Your task to perform on an android device: toggle notifications settings in the gmail app Image 0: 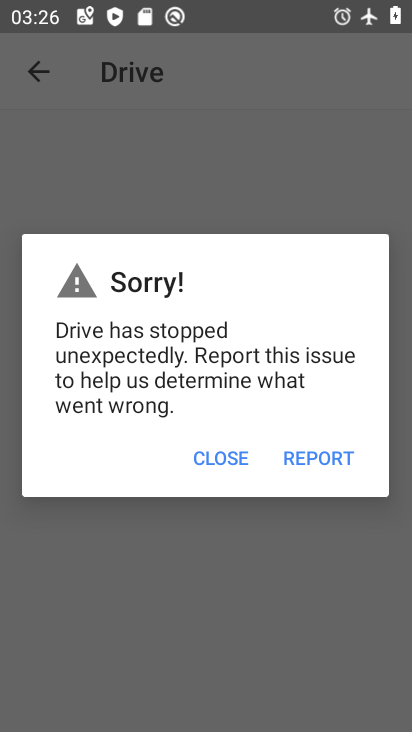
Step 0: press home button
Your task to perform on an android device: toggle notifications settings in the gmail app Image 1: 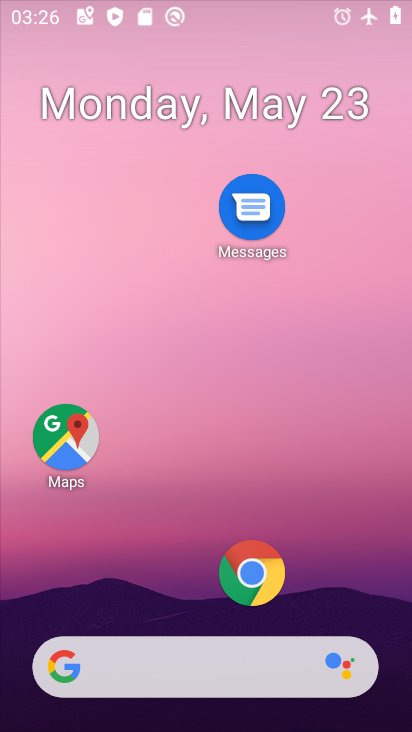
Step 1: drag from (332, 659) to (318, 119)
Your task to perform on an android device: toggle notifications settings in the gmail app Image 2: 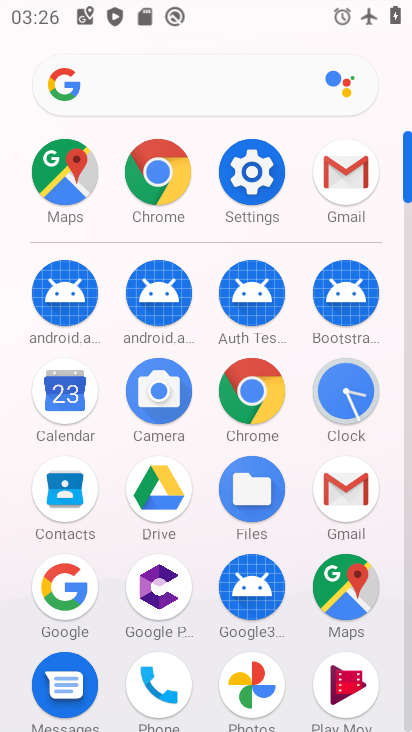
Step 2: click (348, 480)
Your task to perform on an android device: toggle notifications settings in the gmail app Image 3: 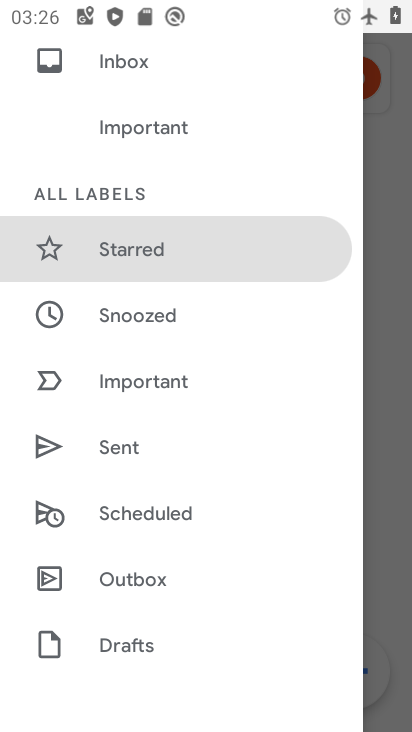
Step 3: drag from (163, 660) to (211, 126)
Your task to perform on an android device: toggle notifications settings in the gmail app Image 4: 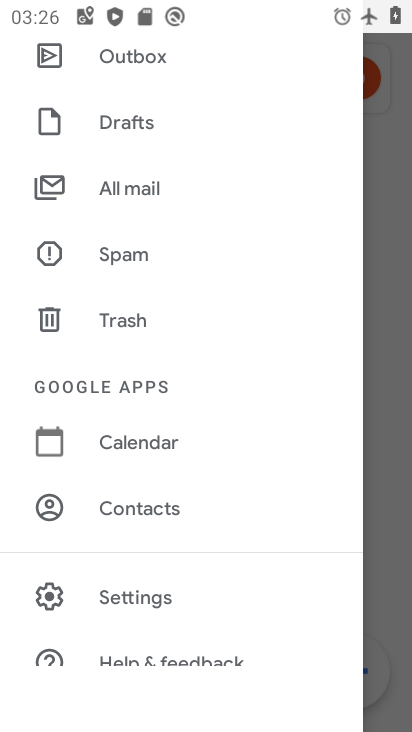
Step 4: click (169, 583)
Your task to perform on an android device: toggle notifications settings in the gmail app Image 5: 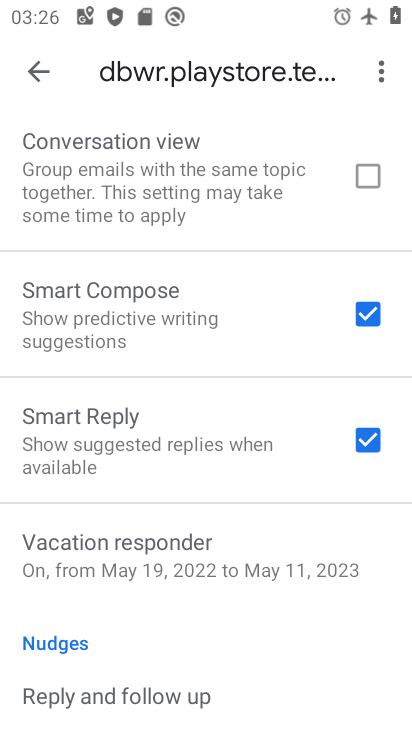
Step 5: drag from (219, 226) to (231, 730)
Your task to perform on an android device: toggle notifications settings in the gmail app Image 6: 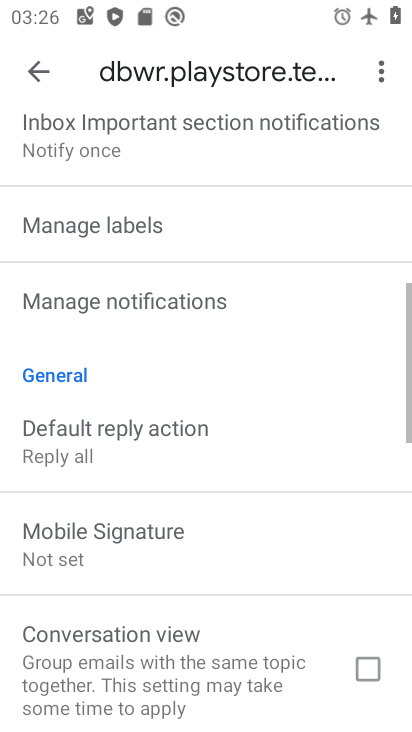
Step 6: click (162, 298)
Your task to perform on an android device: toggle notifications settings in the gmail app Image 7: 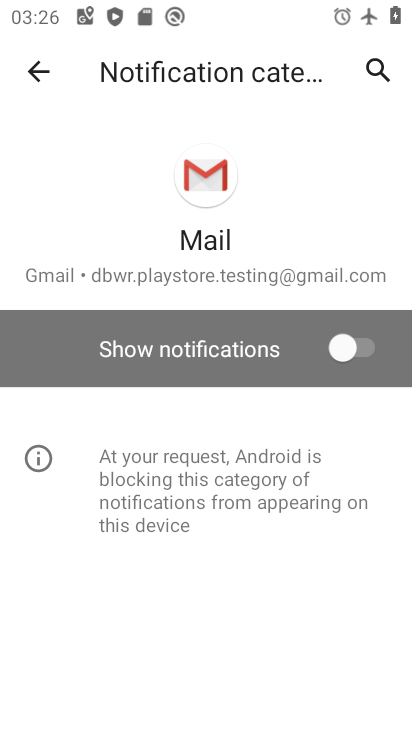
Step 7: click (373, 349)
Your task to perform on an android device: toggle notifications settings in the gmail app Image 8: 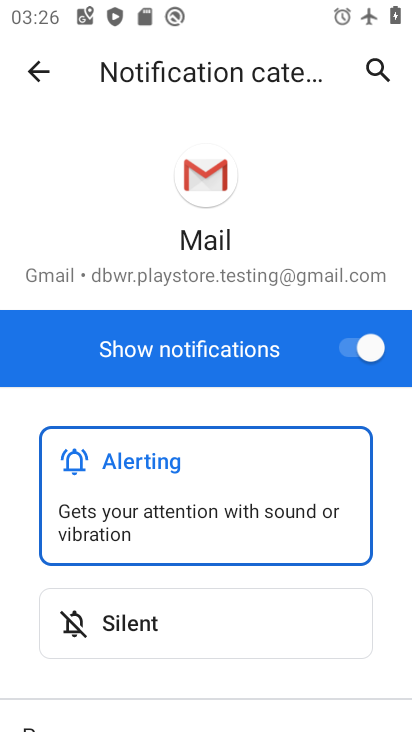
Step 8: task complete